Your task to perform on an android device: What's the weather? Image 0: 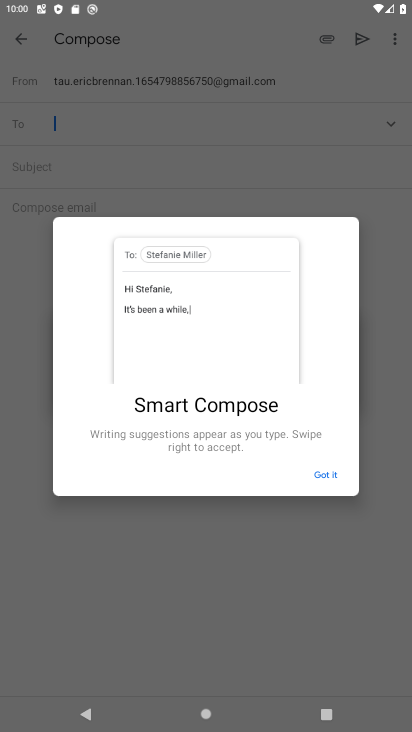
Step 0: press home button
Your task to perform on an android device: What's the weather? Image 1: 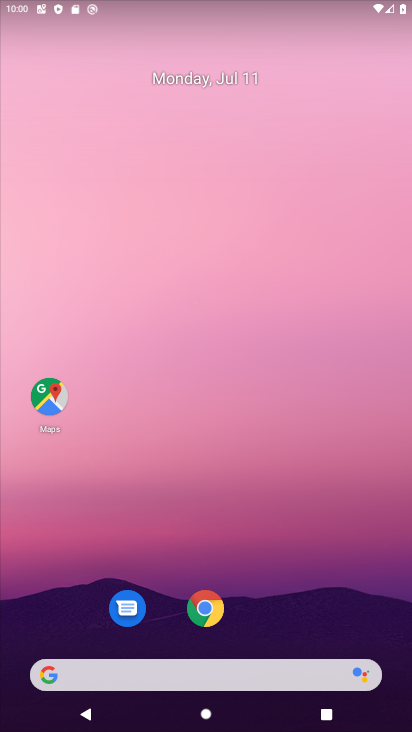
Step 1: click (85, 672)
Your task to perform on an android device: What's the weather? Image 2: 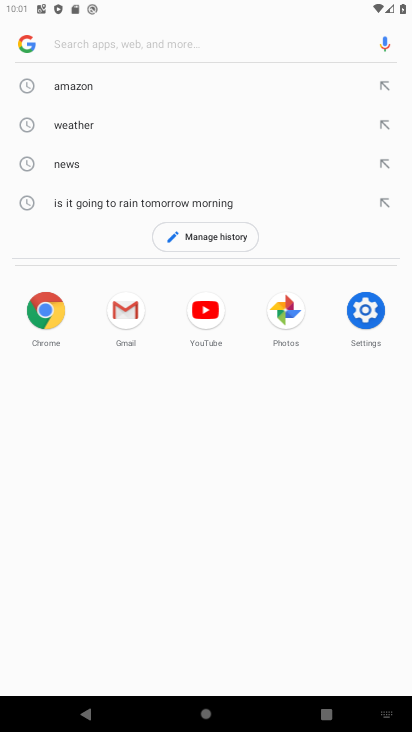
Step 2: type "What's the weather?"
Your task to perform on an android device: What's the weather? Image 3: 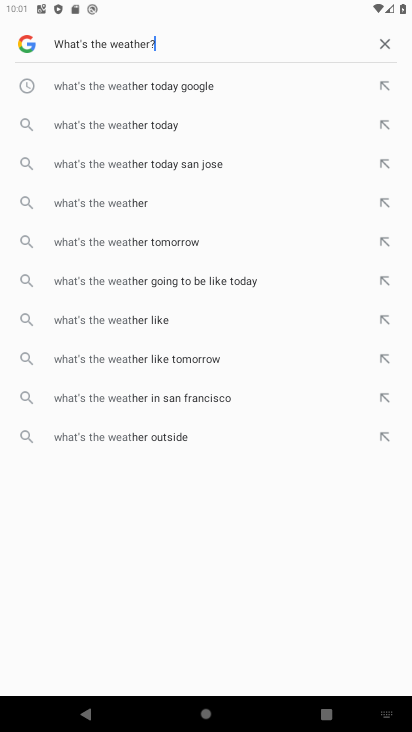
Step 3: type ""
Your task to perform on an android device: What's the weather? Image 4: 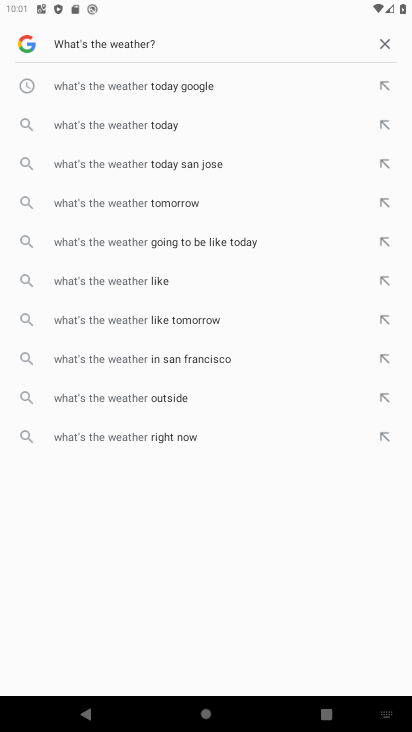
Step 4: type ""
Your task to perform on an android device: What's the weather? Image 5: 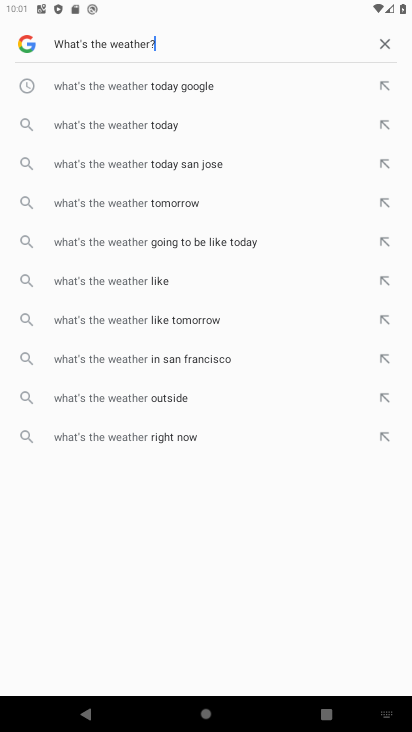
Step 5: type ""
Your task to perform on an android device: What's the weather? Image 6: 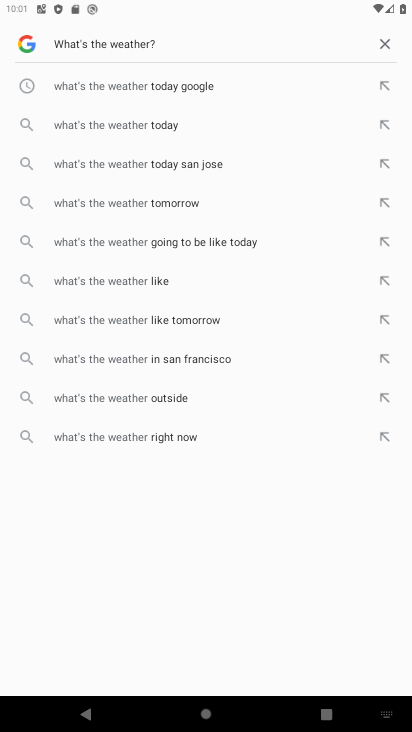
Step 6: type ""
Your task to perform on an android device: What's the weather? Image 7: 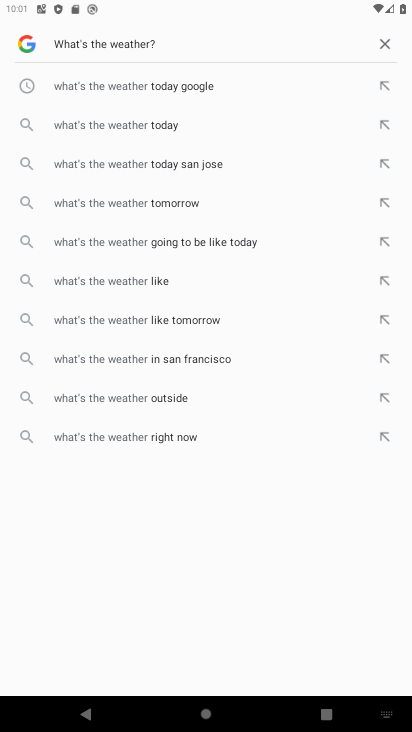
Step 7: task complete